Your task to perform on an android device: Go to internet settings Image 0: 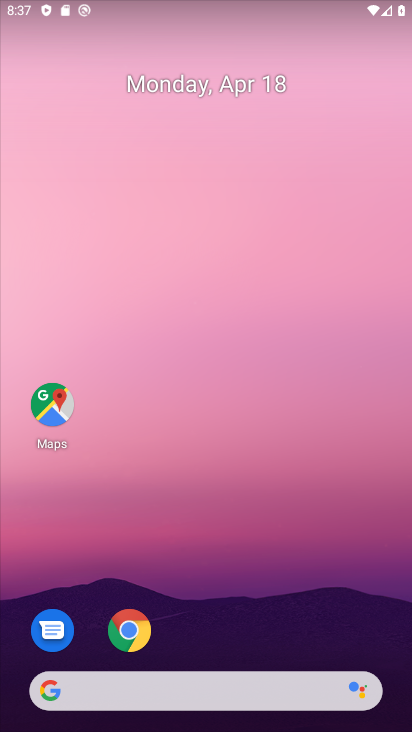
Step 0: drag from (251, 640) to (257, 143)
Your task to perform on an android device: Go to internet settings Image 1: 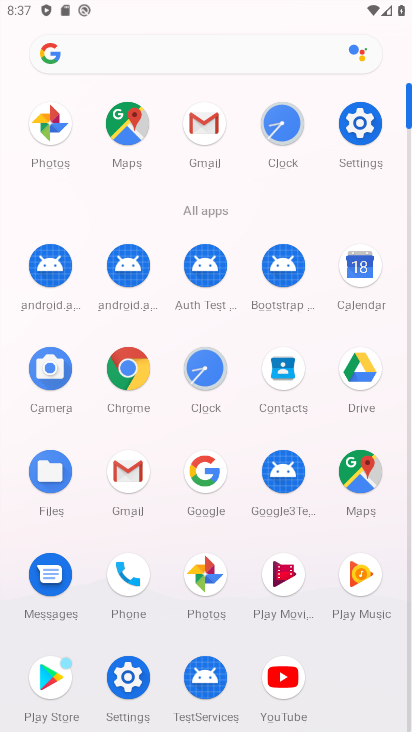
Step 1: click (348, 123)
Your task to perform on an android device: Go to internet settings Image 2: 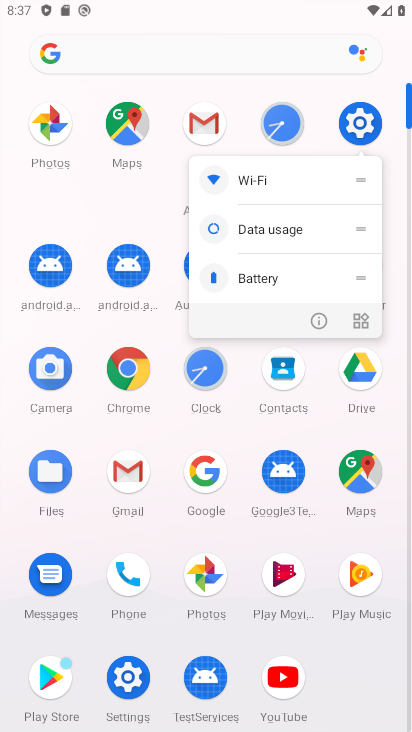
Step 2: click (363, 130)
Your task to perform on an android device: Go to internet settings Image 3: 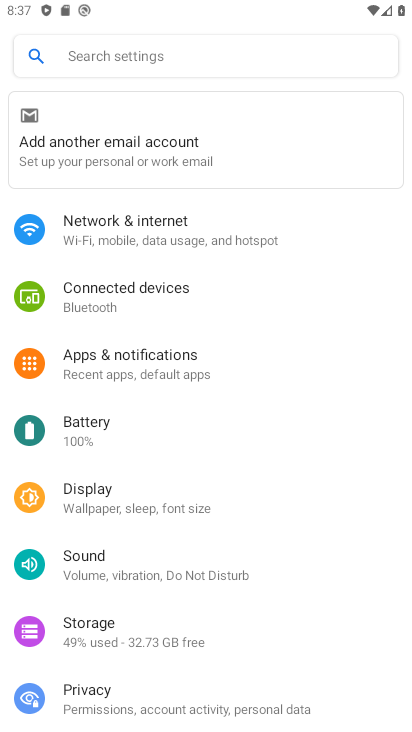
Step 3: click (188, 237)
Your task to perform on an android device: Go to internet settings Image 4: 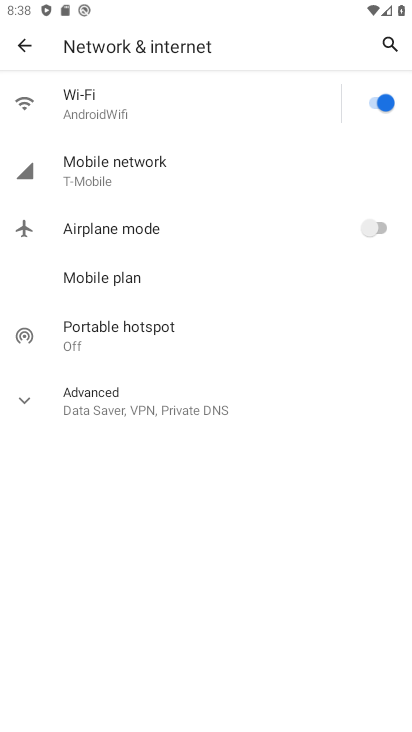
Step 4: click (192, 407)
Your task to perform on an android device: Go to internet settings Image 5: 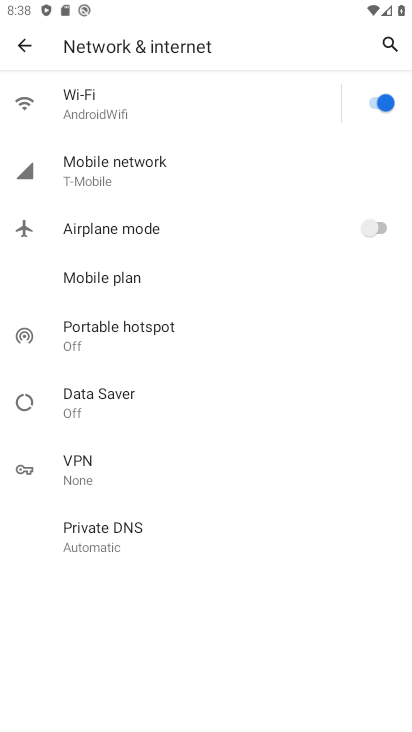
Step 5: task complete